Your task to perform on an android device: Go to Maps Image 0: 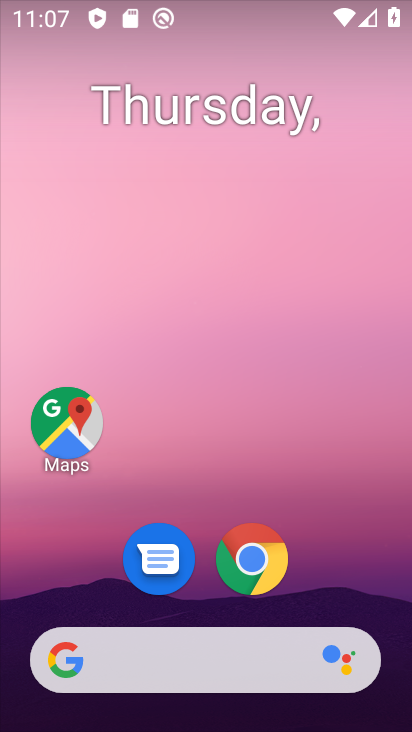
Step 0: click (349, 141)
Your task to perform on an android device: Go to Maps Image 1: 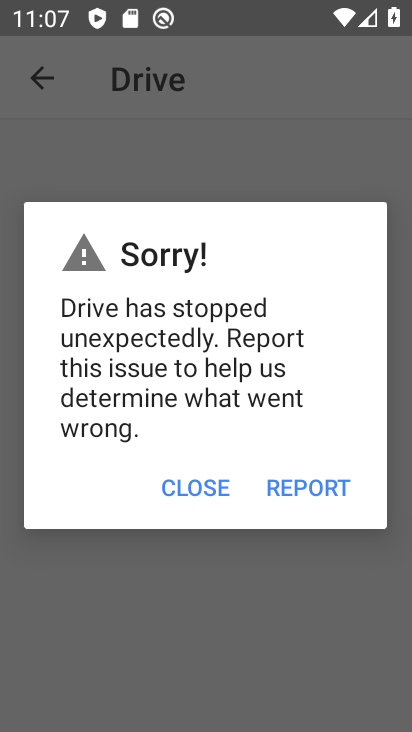
Step 1: press home button
Your task to perform on an android device: Go to Maps Image 2: 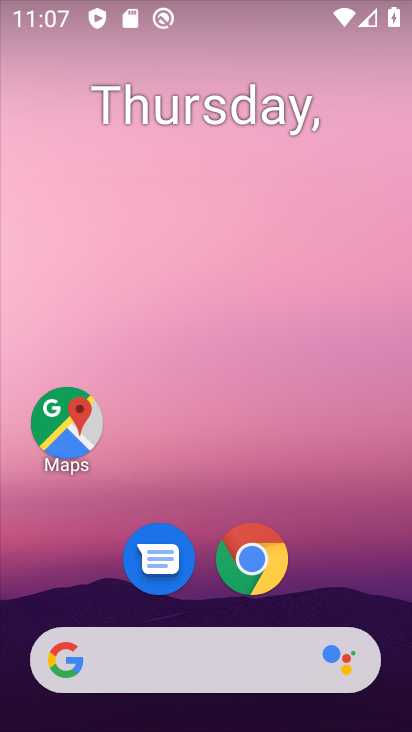
Step 2: click (336, 583)
Your task to perform on an android device: Go to Maps Image 3: 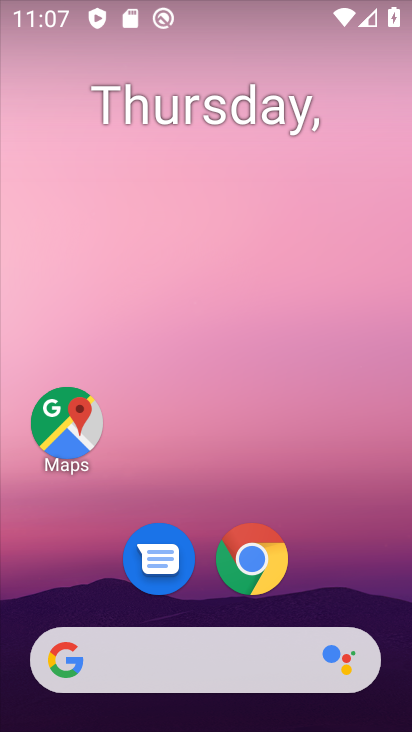
Step 3: click (75, 423)
Your task to perform on an android device: Go to Maps Image 4: 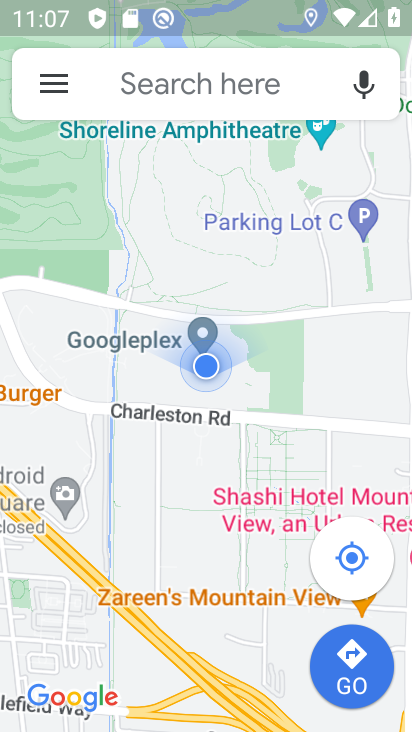
Step 4: task complete